Your task to perform on an android device: toggle wifi Image 0: 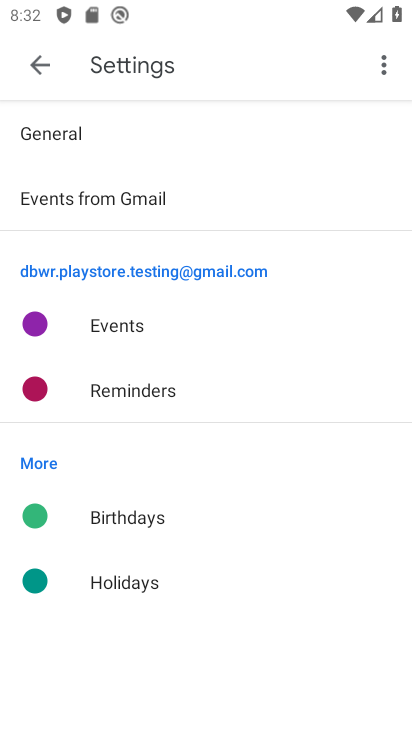
Step 0: press home button
Your task to perform on an android device: toggle wifi Image 1: 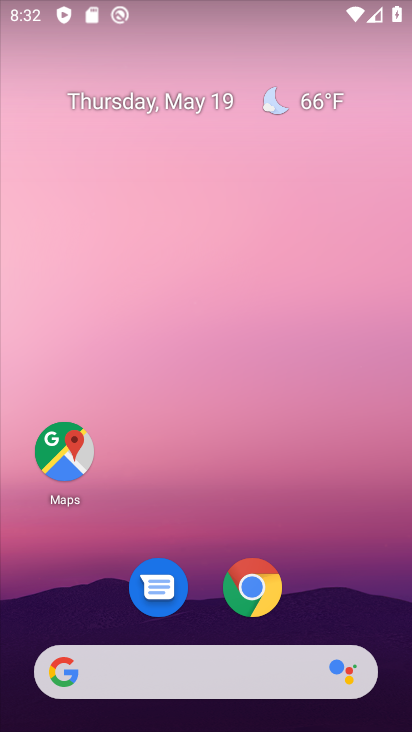
Step 1: drag from (229, 617) to (253, 220)
Your task to perform on an android device: toggle wifi Image 2: 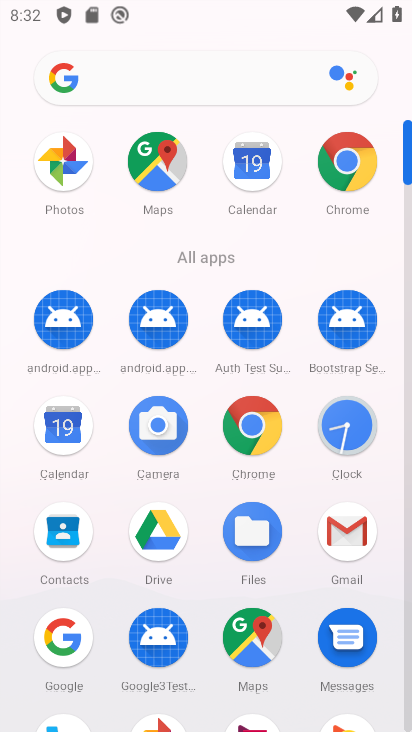
Step 2: drag from (295, 499) to (261, 221)
Your task to perform on an android device: toggle wifi Image 3: 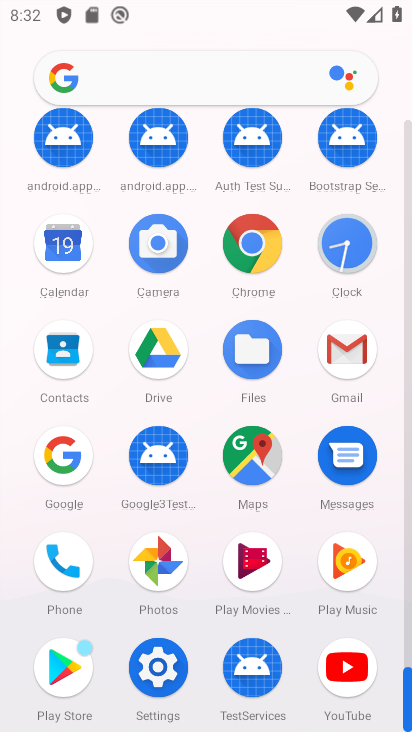
Step 3: click (167, 650)
Your task to perform on an android device: toggle wifi Image 4: 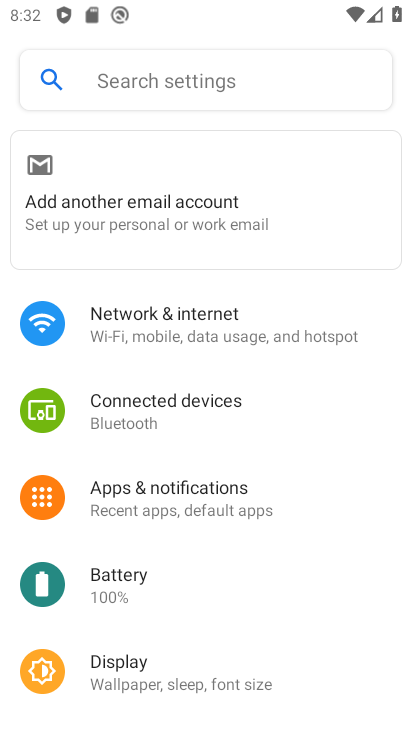
Step 4: click (156, 343)
Your task to perform on an android device: toggle wifi Image 5: 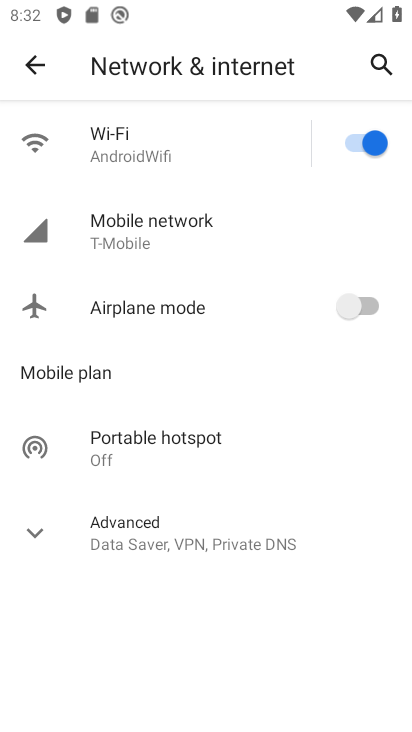
Step 5: click (147, 134)
Your task to perform on an android device: toggle wifi Image 6: 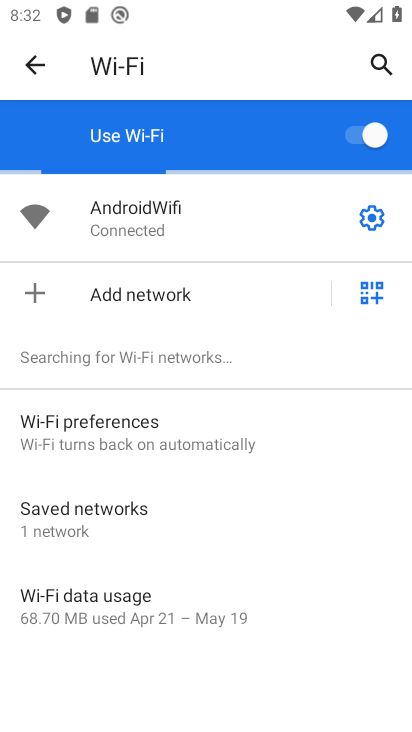
Step 6: task complete